Your task to perform on an android device: toggle priority inbox in the gmail app Image 0: 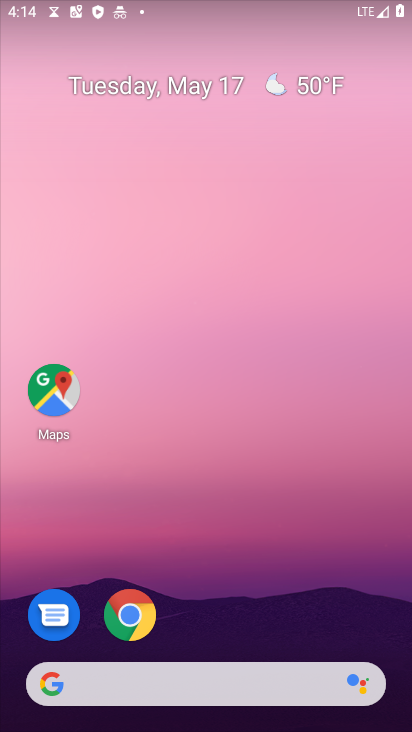
Step 0: drag from (285, 586) to (326, 83)
Your task to perform on an android device: toggle priority inbox in the gmail app Image 1: 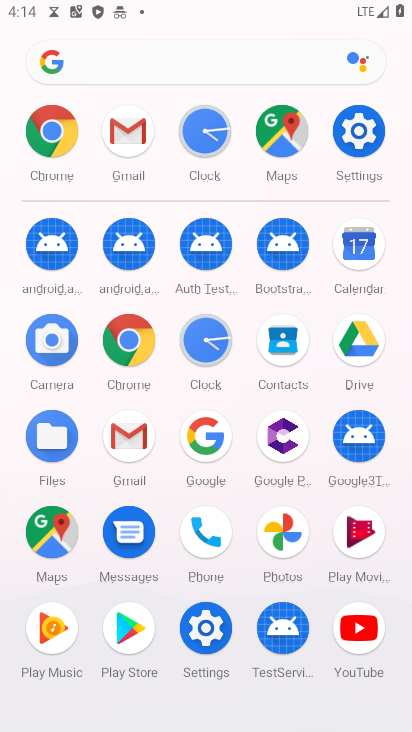
Step 1: click (137, 447)
Your task to perform on an android device: toggle priority inbox in the gmail app Image 2: 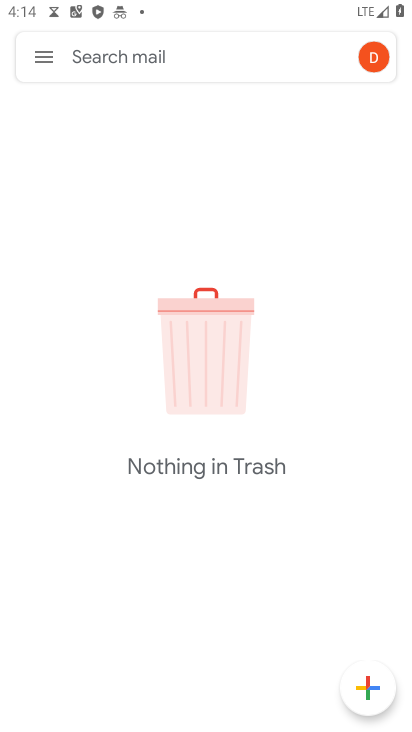
Step 2: click (35, 62)
Your task to perform on an android device: toggle priority inbox in the gmail app Image 3: 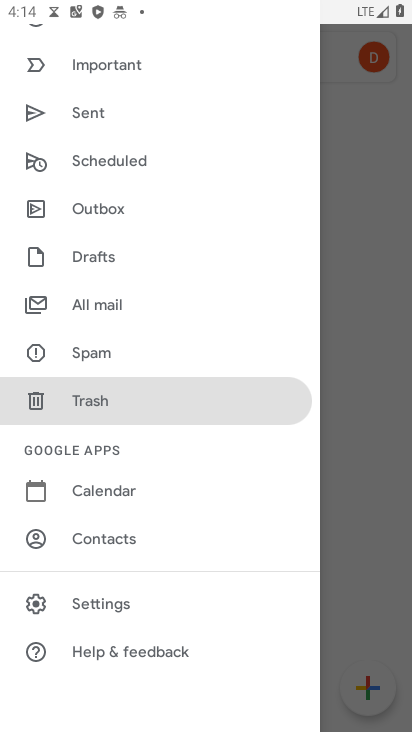
Step 3: click (107, 605)
Your task to perform on an android device: toggle priority inbox in the gmail app Image 4: 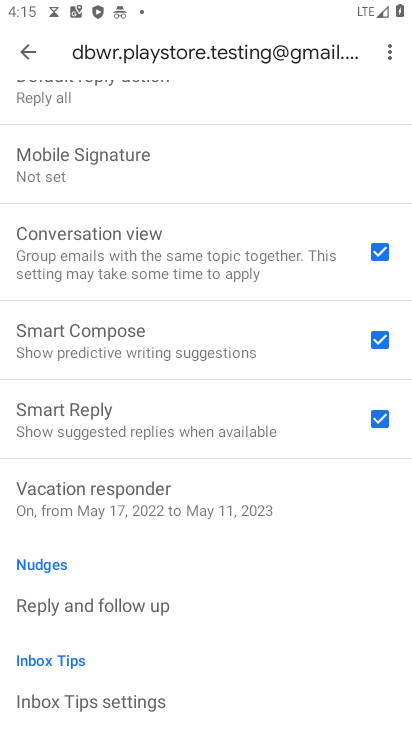
Step 4: drag from (111, 200) to (199, 584)
Your task to perform on an android device: toggle priority inbox in the gmail app Image 5: 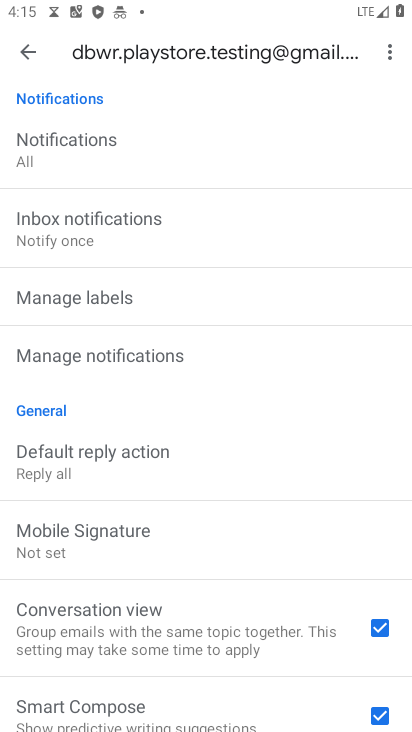
Step 5: drag from (89, 223) to (132, 533)
Your task to perform on an android device: toggle priority inbox in the gmail app Image 6: 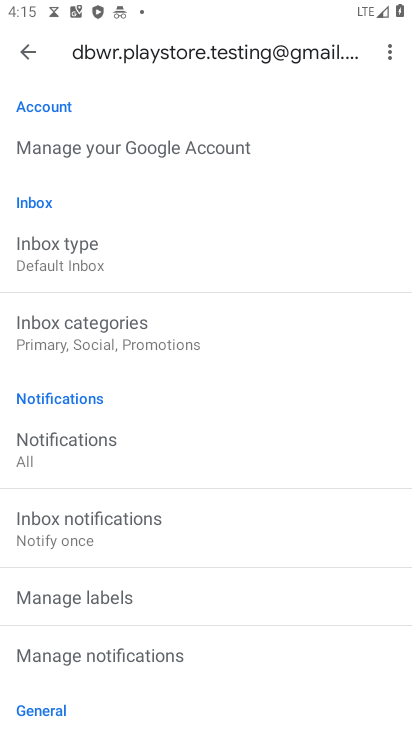
Step 6: click (67, 261)
Your task to perform on an android device: toggle priority inbox in the gmail app Image 7: 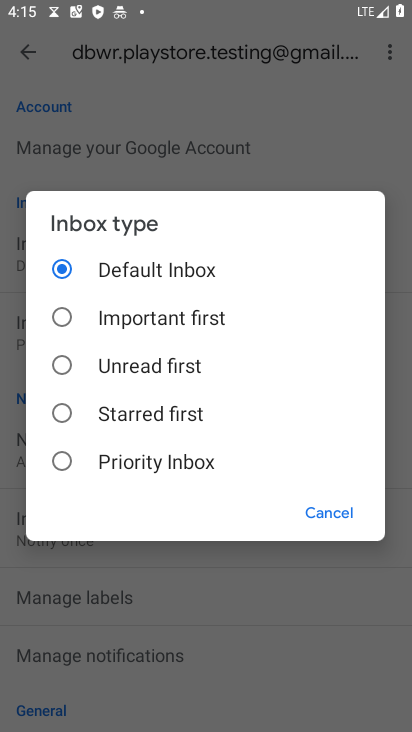
Step 7: click (53, 457)
Your task to perform on an android device: toggle priority inbox in the gmail app Image 8: 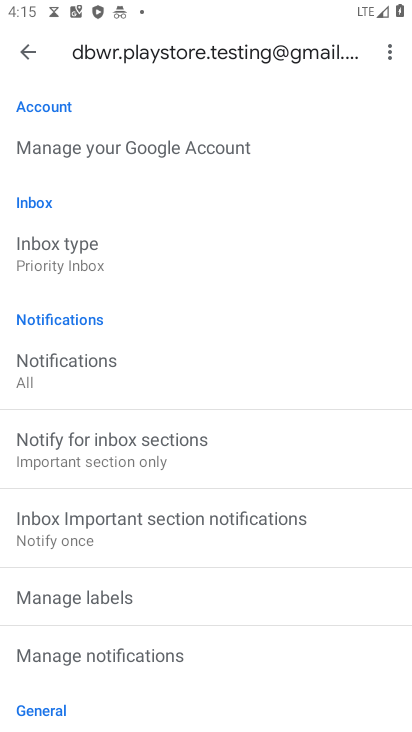
Step 8: task complete